Your task to perform on an android device: turn on location history Image 0: 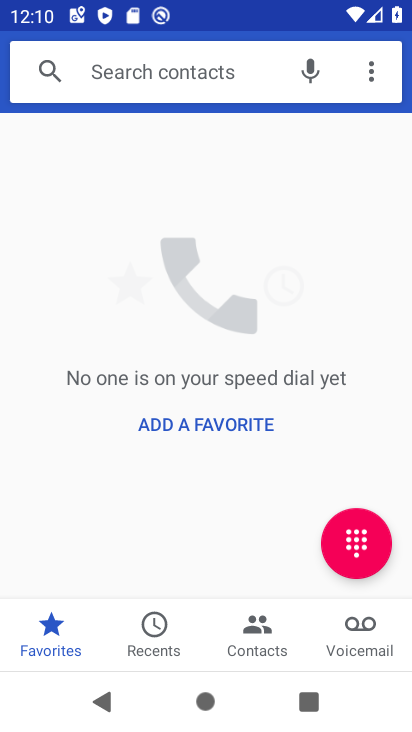
Step 0: press home button
Your task to perform on an android device: turn on location history Image 1: 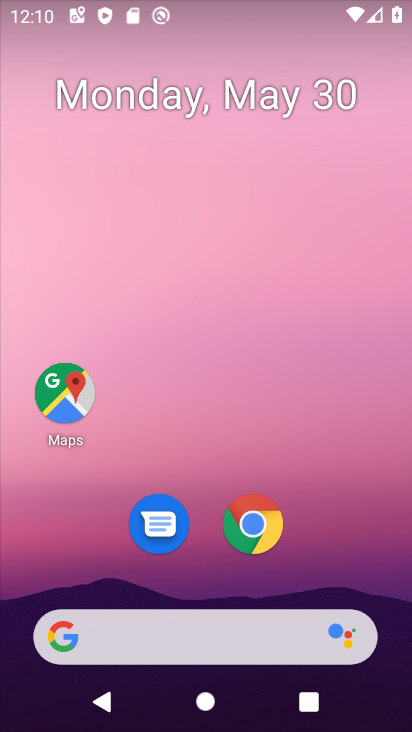
Step 1: drag from (221, 442) to (259, 17)
Your task to perform on an android device: turn on location history Image 2: 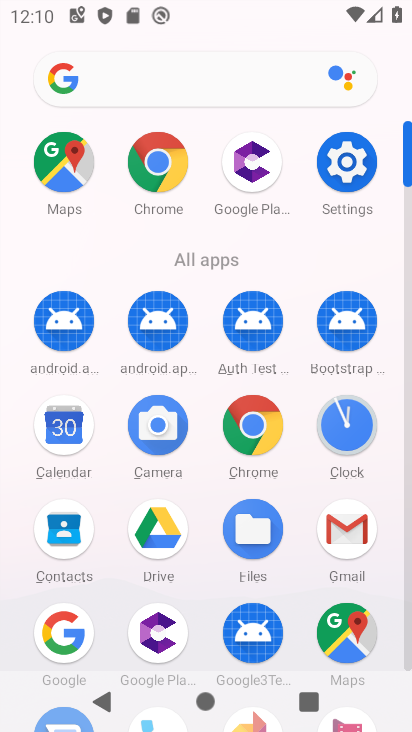
Step 2: click (343, 174)
Your task to perform on an android device: turn on location history Image 3: 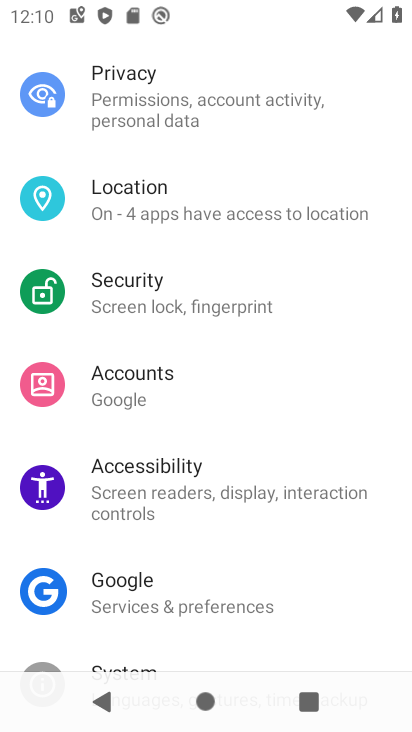
Step 3: click (263, 207)
Your task to perform on an android device: turn on location history Image 4: 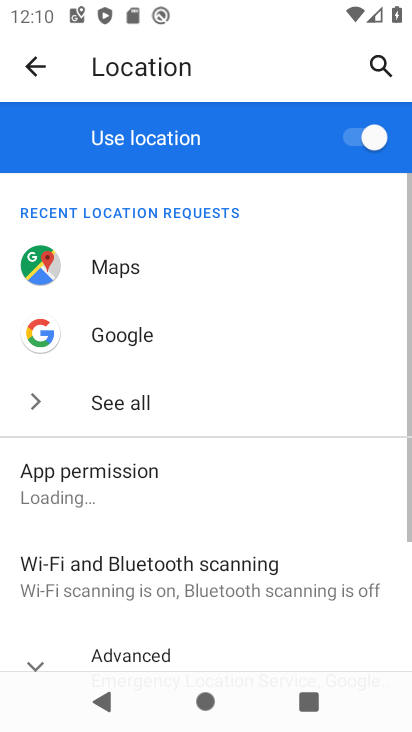
Step 4: drag from (228, 497) to (294, 45)
Your task to perform on an android device: turn on location history Image 5: 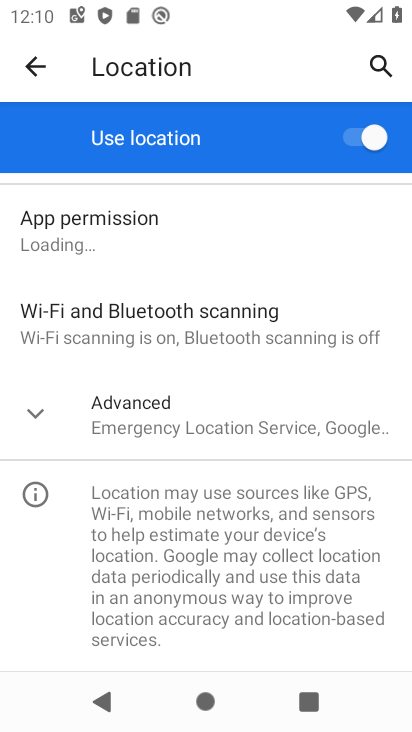
Step 5: click (29, 409)
Your task to perform on an android device: turn on location history Image 6: 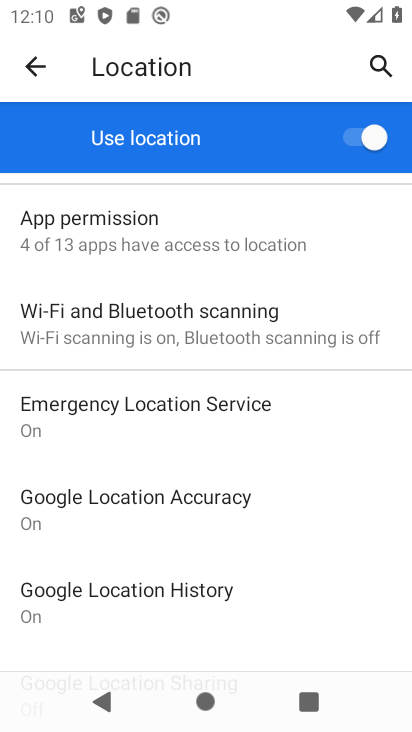
Step 6: task complete